Your task to perform on an android device: What's on my calendar today? Image 0: 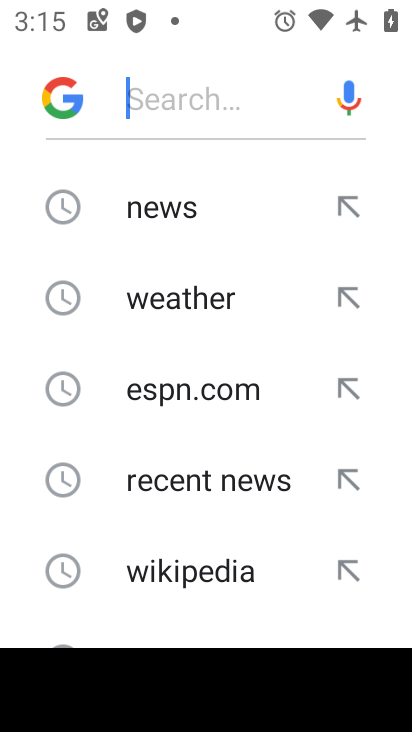
Step 0: press home button
Your task to perform on an android device: What's on my calendar today? Image 1: 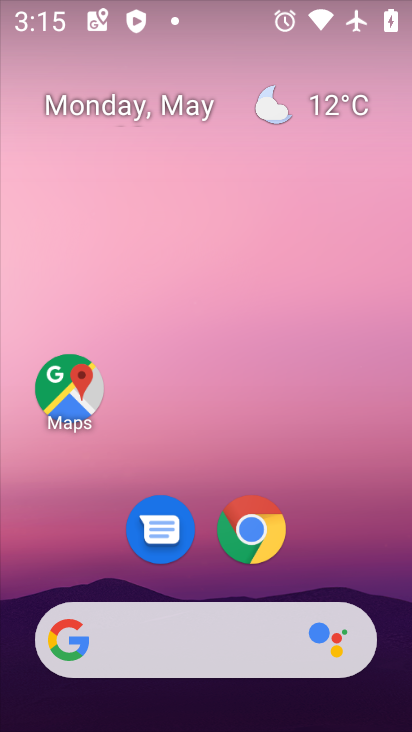
Step 1: drag from (333, 577) to (344, 63)
Your task to perform on an android device: What's on my calendar today? Image 2: 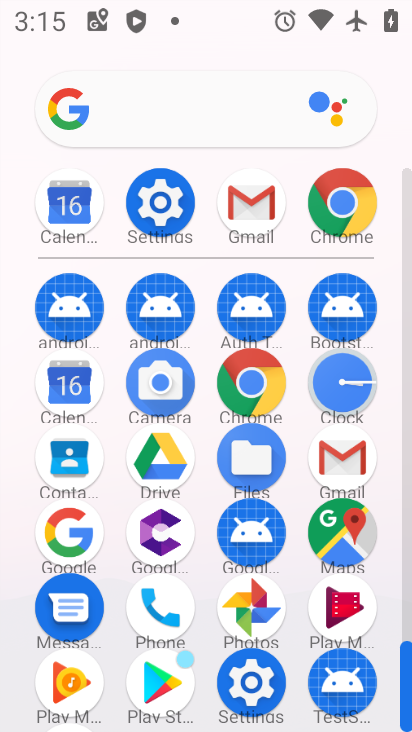
Step 2: click (72, 378)
Your task to perform on an android device: What's on my calendar today? Image 3: 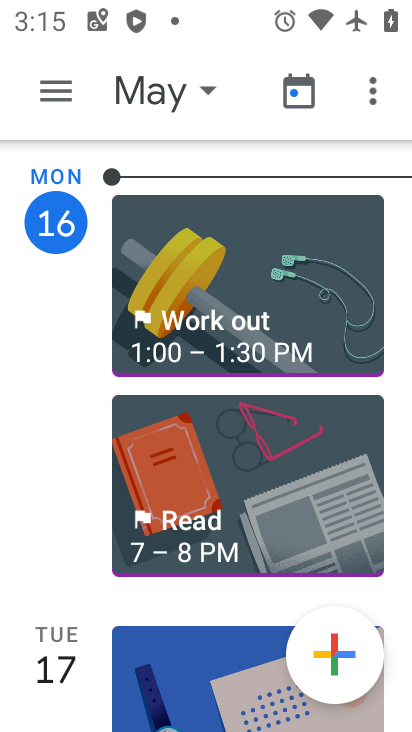
Step 3: click (155, 106)
Your task to perform on an android device: What's on my calendar today? Image 4: 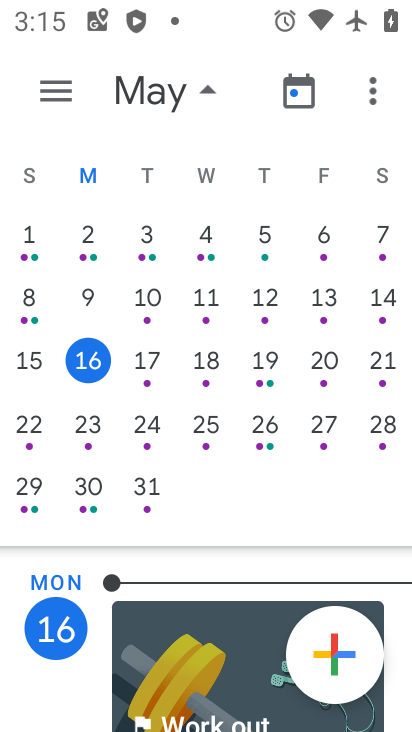
Step 4: click (84, 352)
Your task to perform on an android device: What's on my calendar today? Image 5: 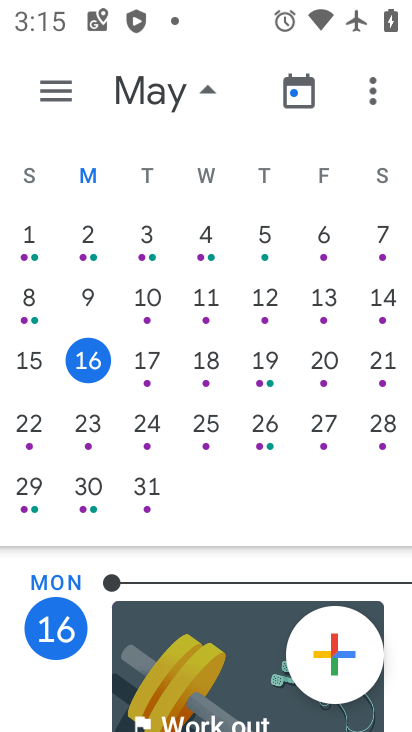
Step 5: task complete